Your task to perform on an android device: open app "Roku - Official Remote Control" Image 0: 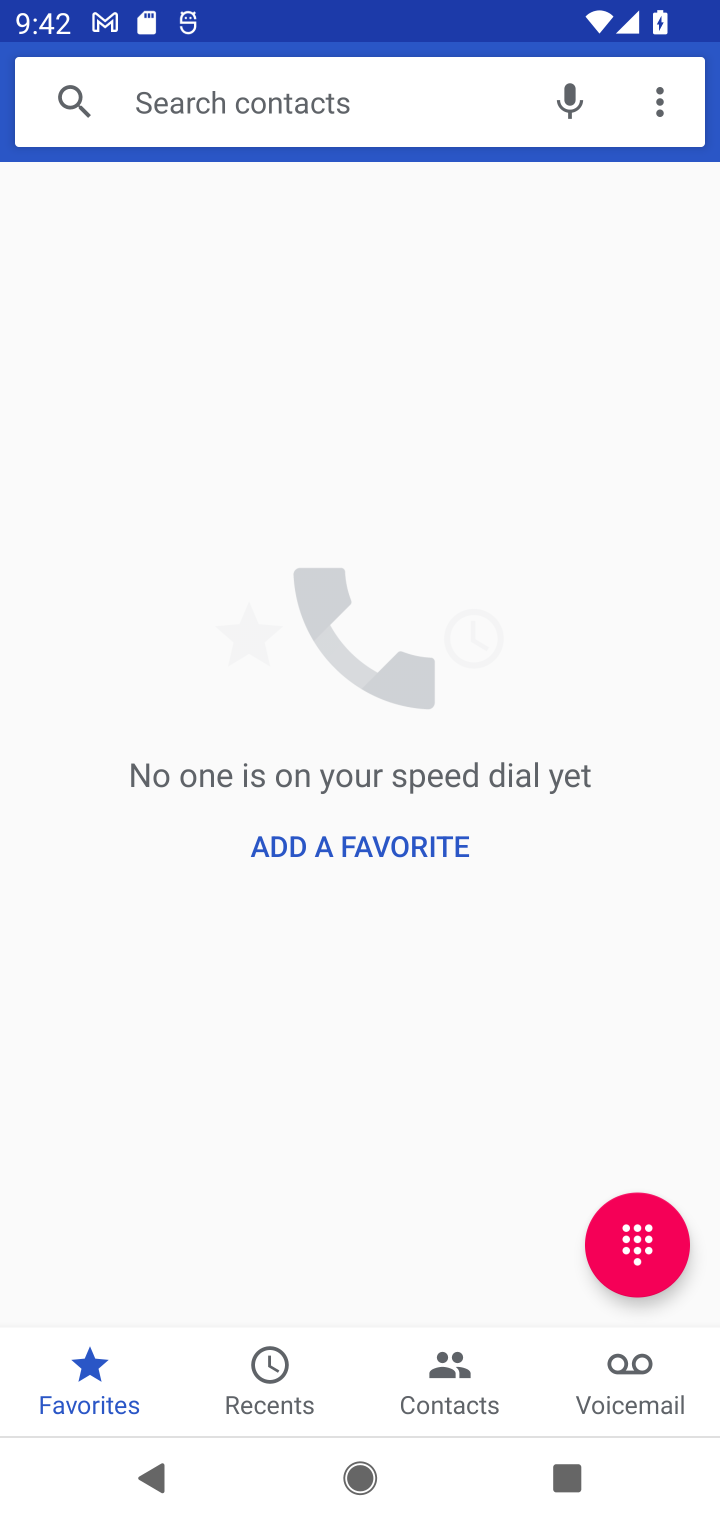
Step 0: press home button
Your task to perform on an android device: open app "Roku - Official Remote Control" Image 1: 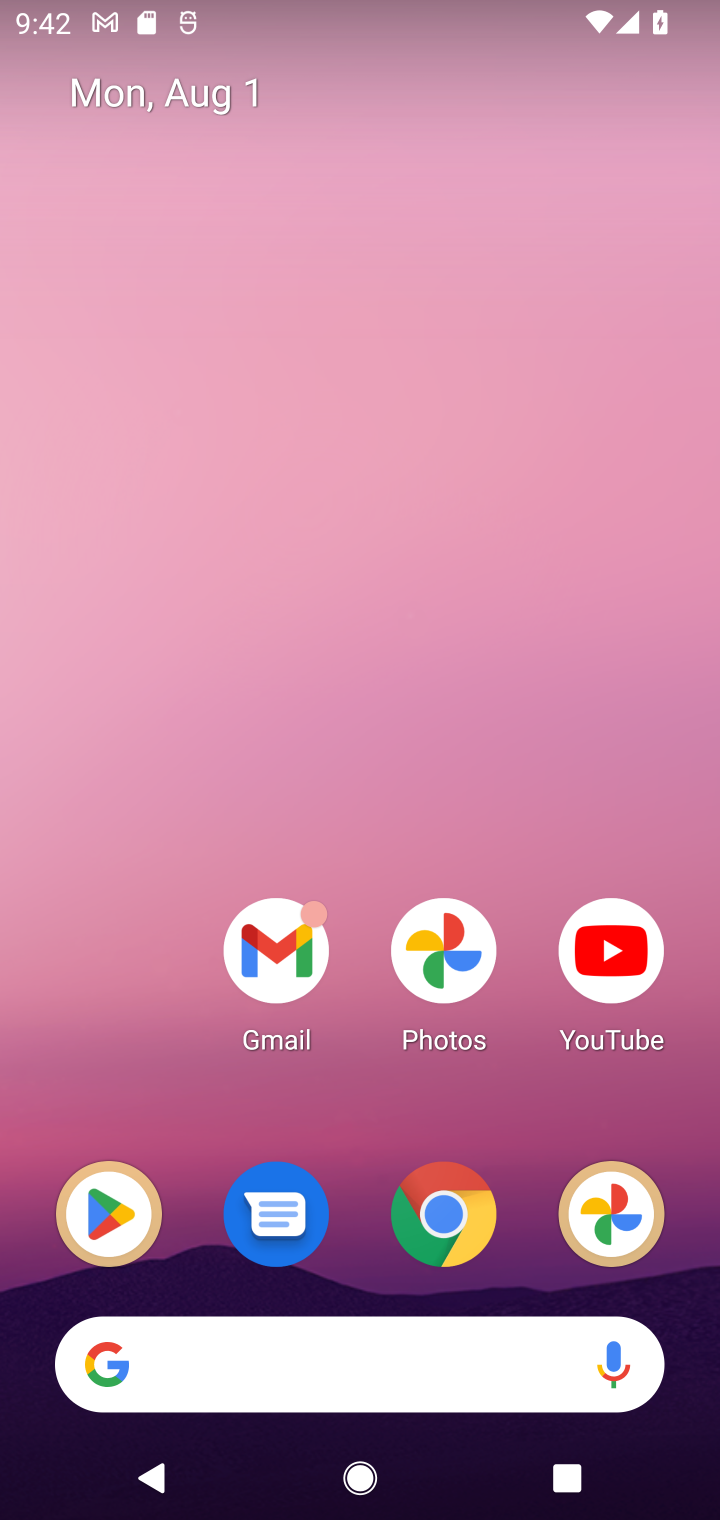
Step 1: click (117, 1216)
Your task to perform on an android device: open app "Roku - Official Remote Control" Image 2: 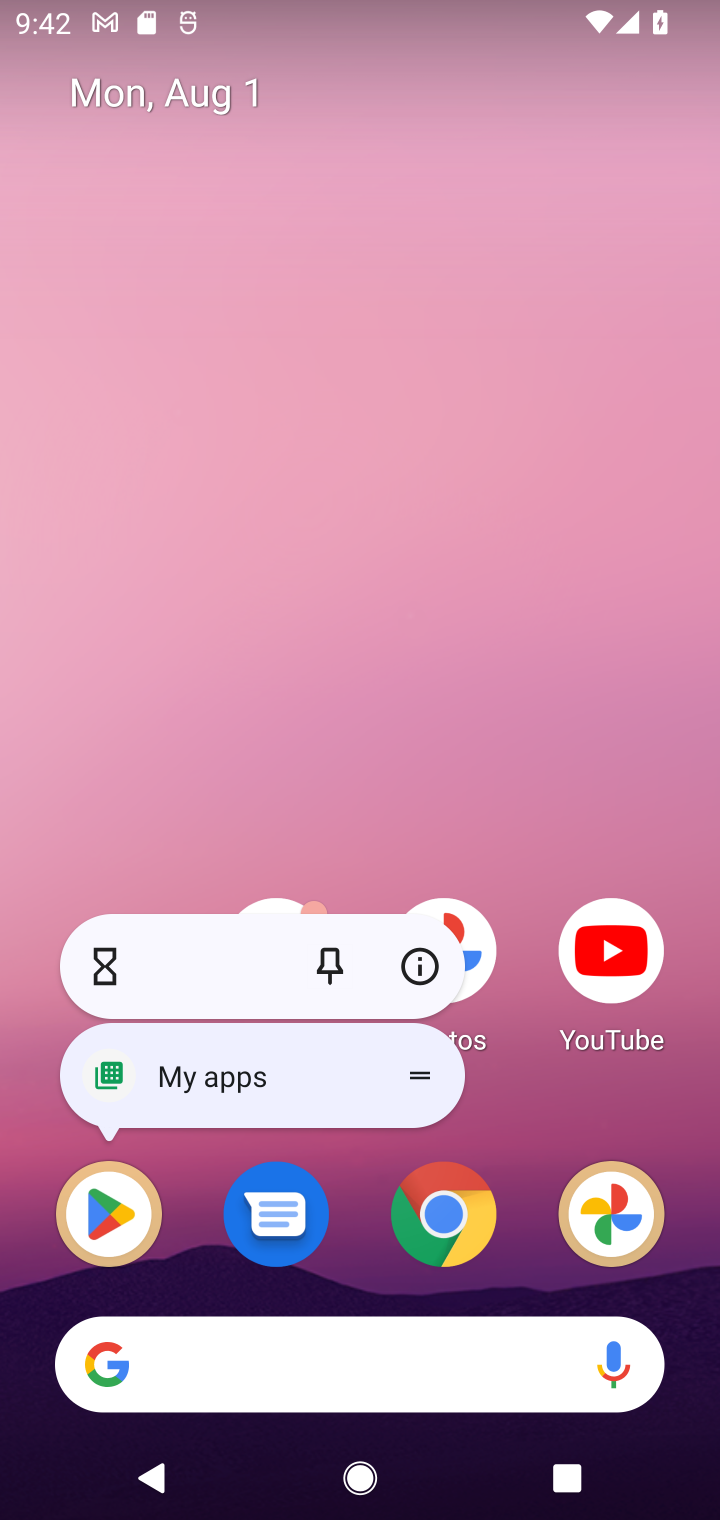
Step 2: click (117, 1220)
Your task to perform on an android device: open app "Roku - Official Remote Control" Image 3: 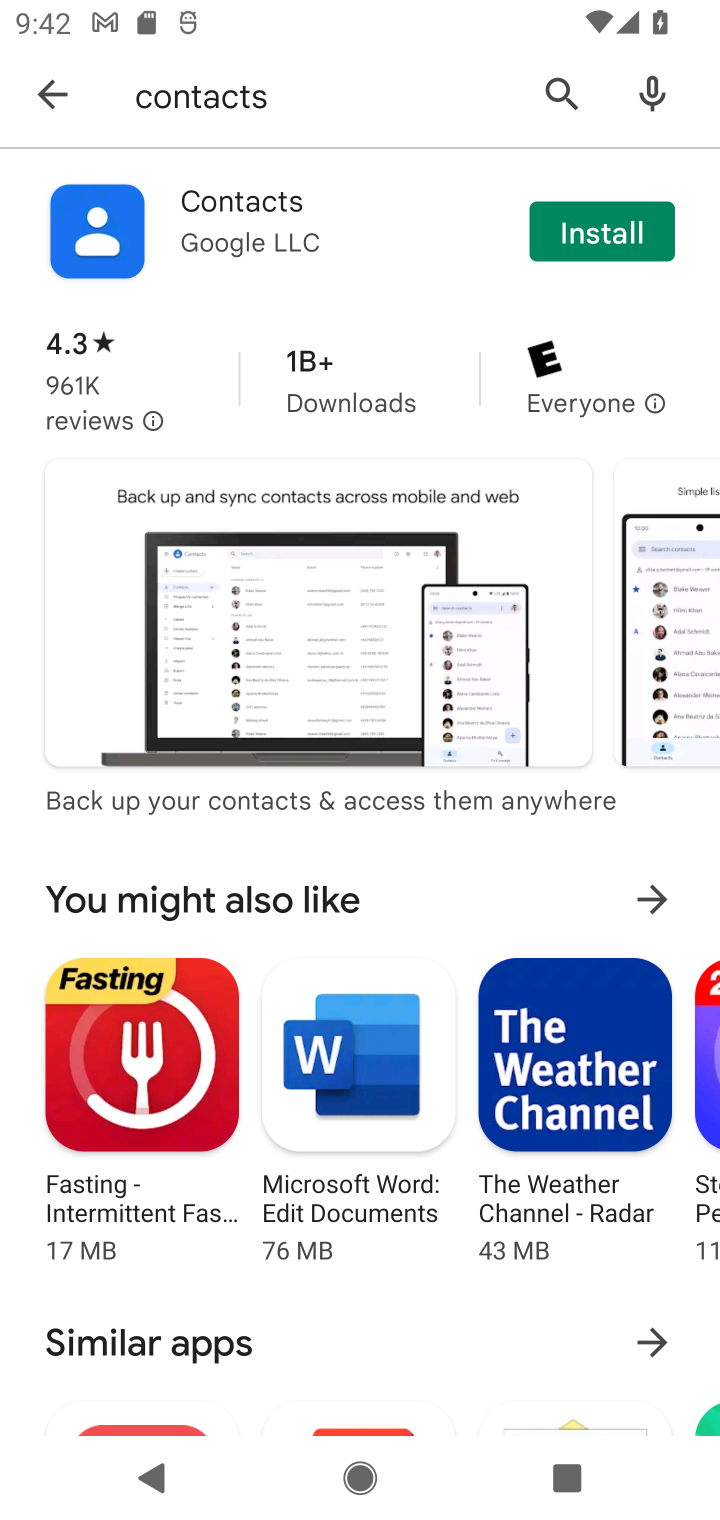
Step 3: click (557, 90)
Your task to perform on an android device: open app "Roku - Official Remote Control" Image 4: 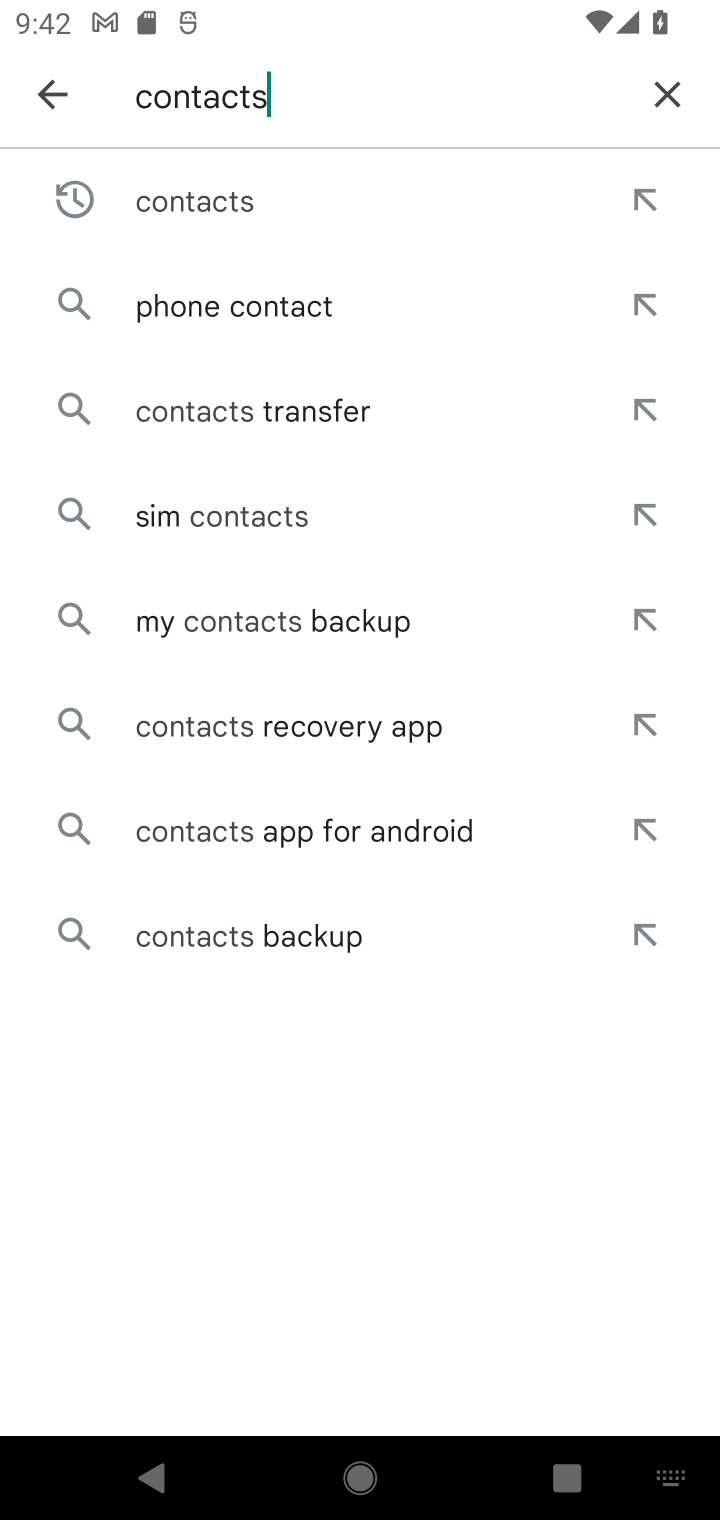
Step 4: click (675, 91)
Your task to perform on an android device: open app "Roku - Official Remote Control" Image 5: 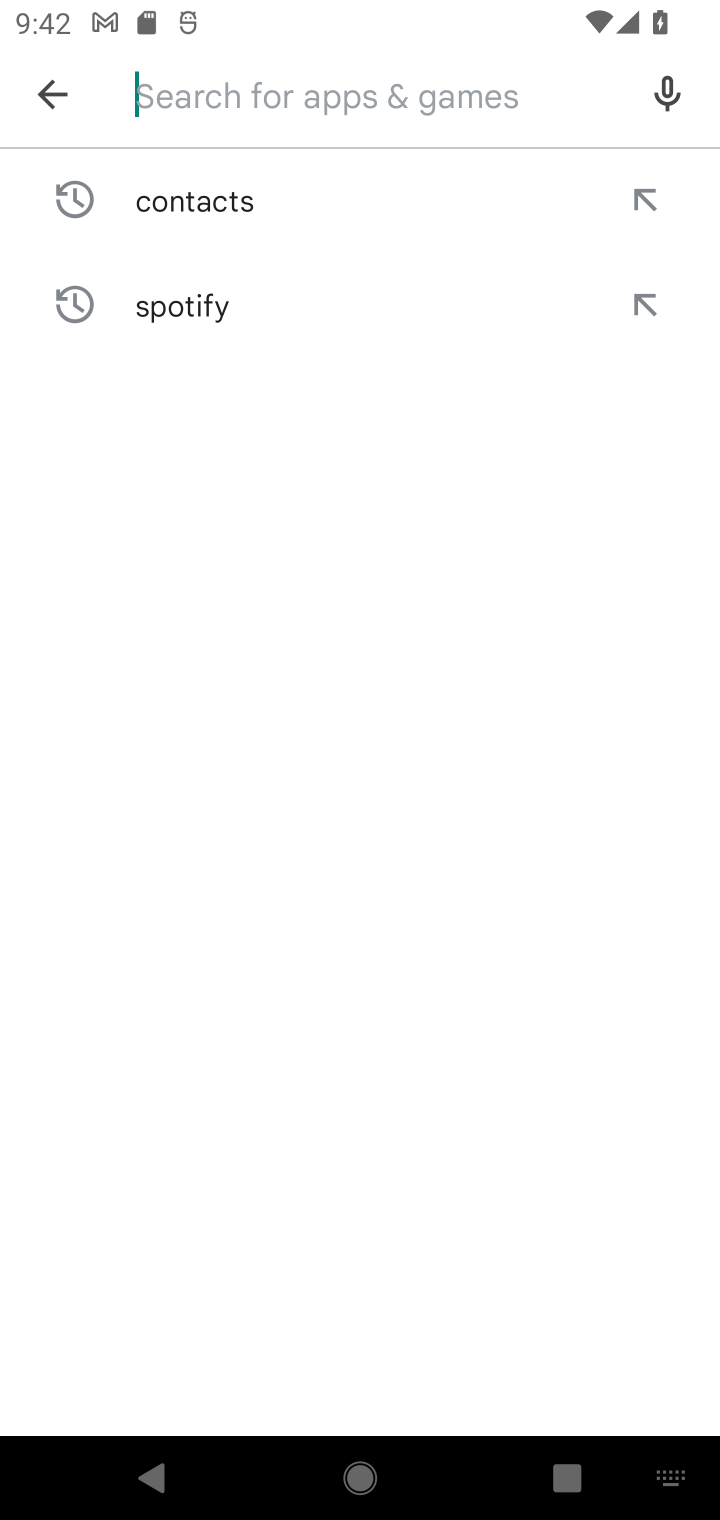
Step 5: type "Roku - Official Remote Control"
Your task to perform on an android device: open app "Roku - Official Remote Control" Image 6: 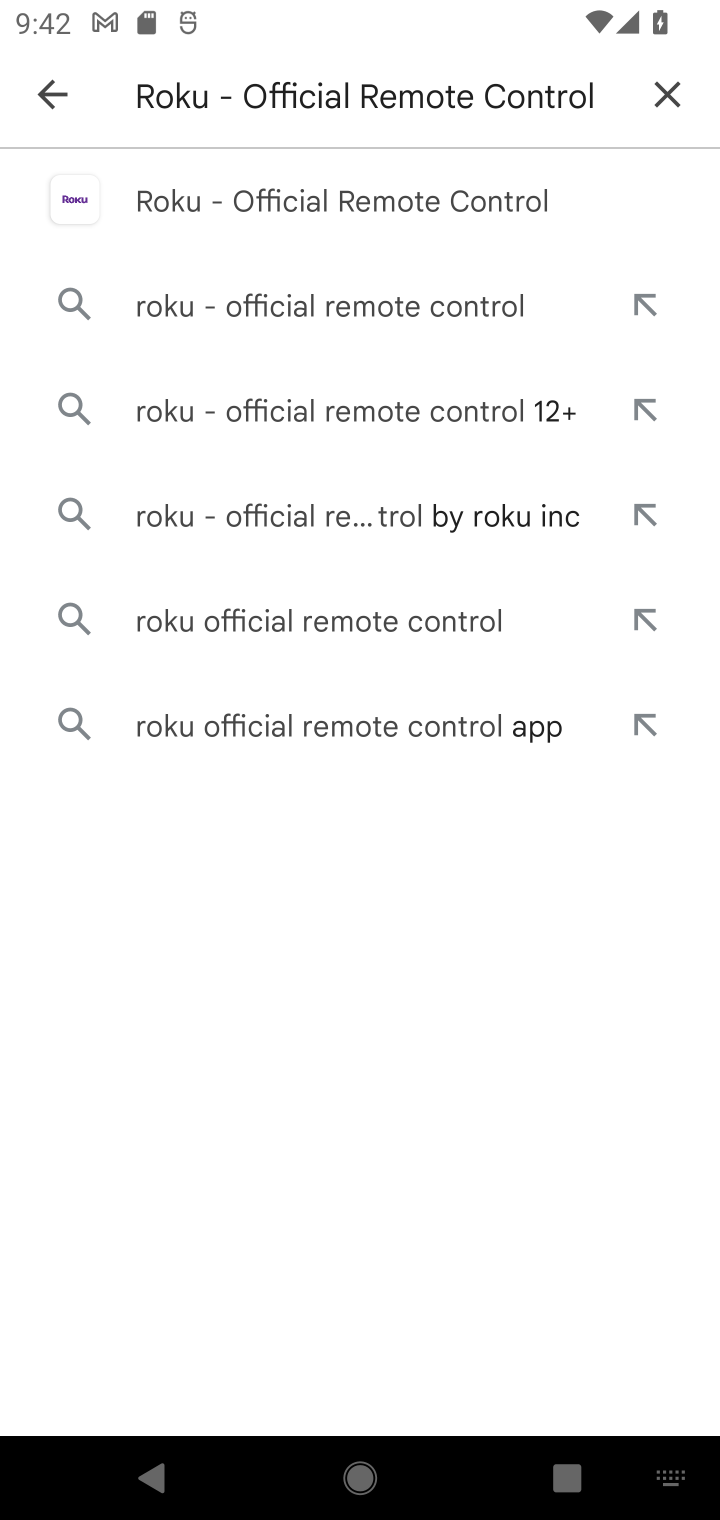
Step 6: click (313, 201)
Your task to perform on an android device: open app "Roku - Official Remote Control" Image 7: 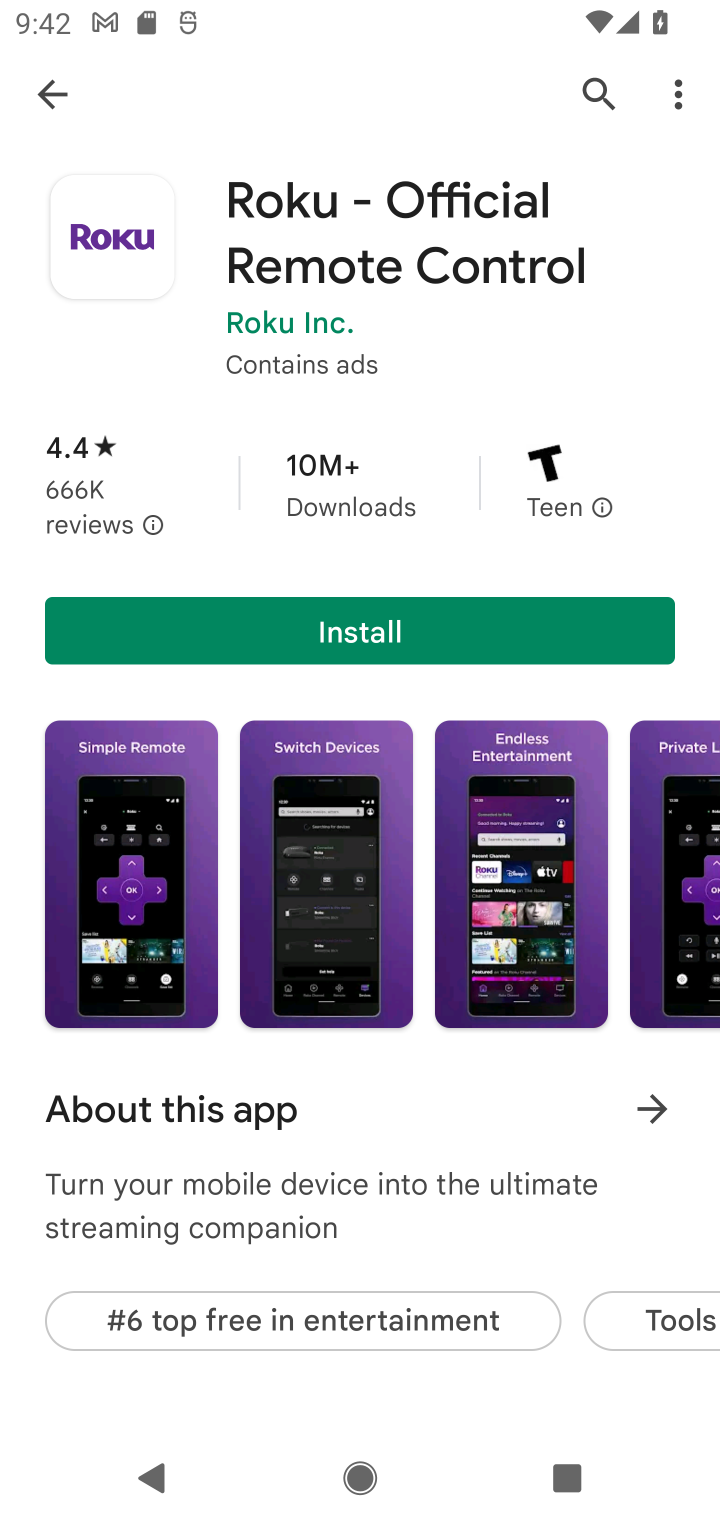
Step 7: task complete